Your task to perform on an android device: turn off airplane mode Image 0: 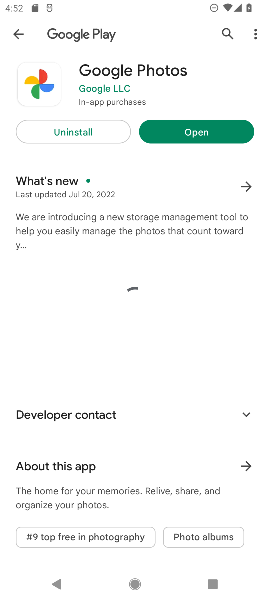
Step 0: press home button
Your task to perform on an android device: turn off airplane mode Image 1: 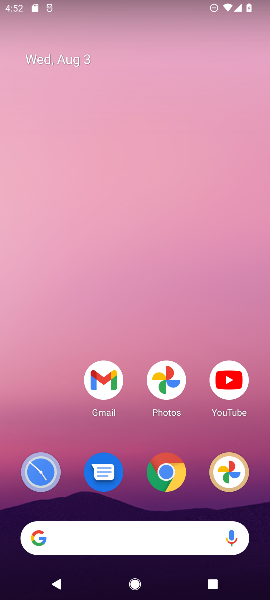
Step 1: task complete